Your task to perform on an android device: turn off smart reply in the gmail app Image 0: 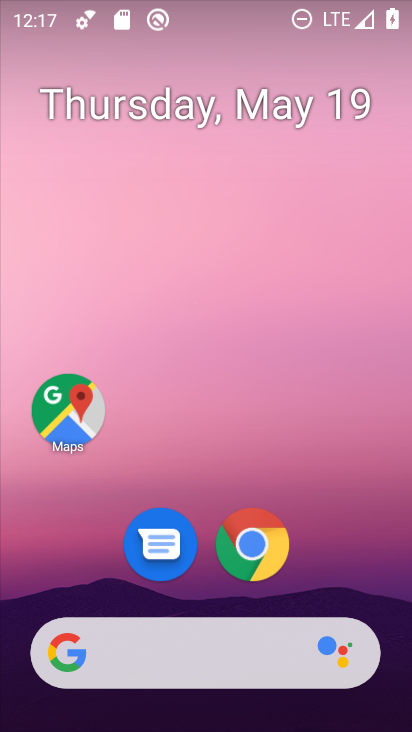
Step 0: click (344, 587)
Your task to perform on an android device: turn off smart reply in the gmail app Image 1: 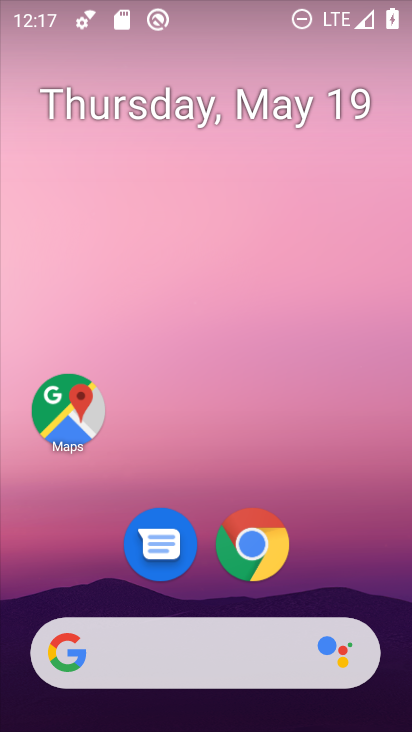
Step 1: drag from (344, 587) to (291, 242)
Your task to perform on an android device: turn off smart reply in the gmail app Image 2: 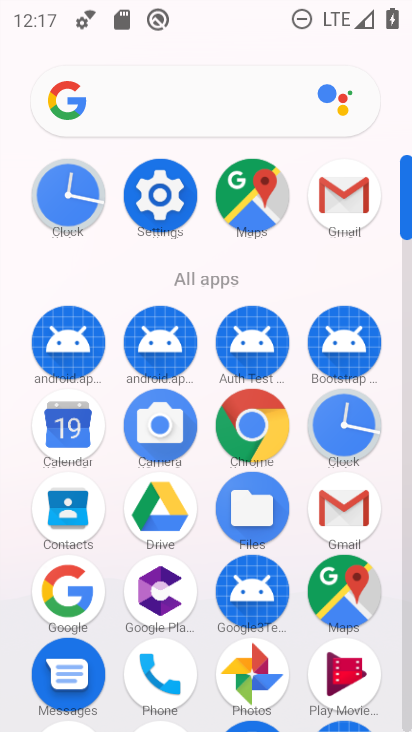
Step 2: click (156, 212)
Your task to perform on an android device: turn off smart reply in the gmail app Image 3: 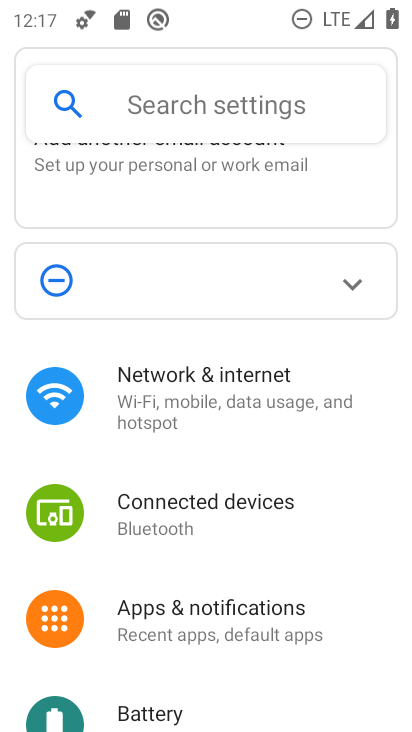
Step 3: press home button
Your task to perform on an android device: turn off smart reply in the gmail app Image 4: 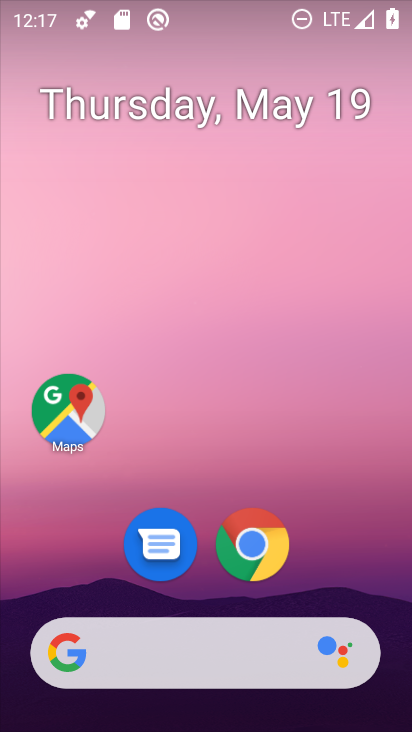
Step 4: drag from (350, 538) to (347, 253)
Your task to perform on an android device: turn off smart reply in the gmail app Image 5: 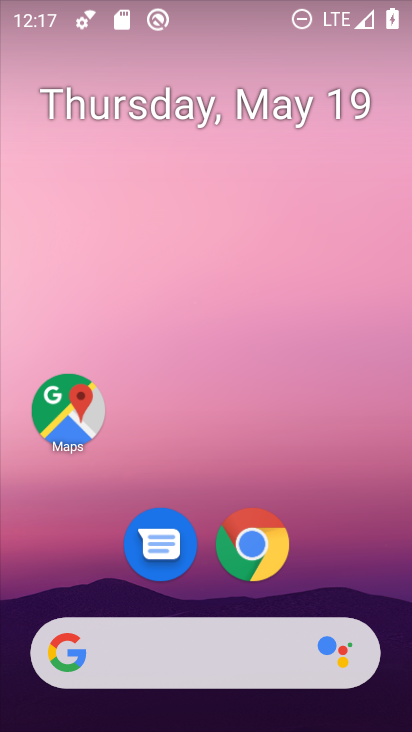
Step 5: drag from (327, 577) to (333, 18)
Your task to perform on an android device: turn off smart reply in the gmail app Image 6: 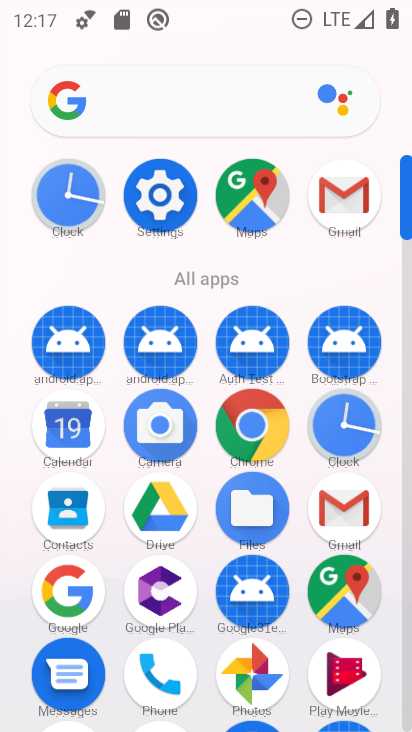
Step 6: click (359, 502)
Your task to perform on an android device: turn off smart reply in the gmail app Image 7: 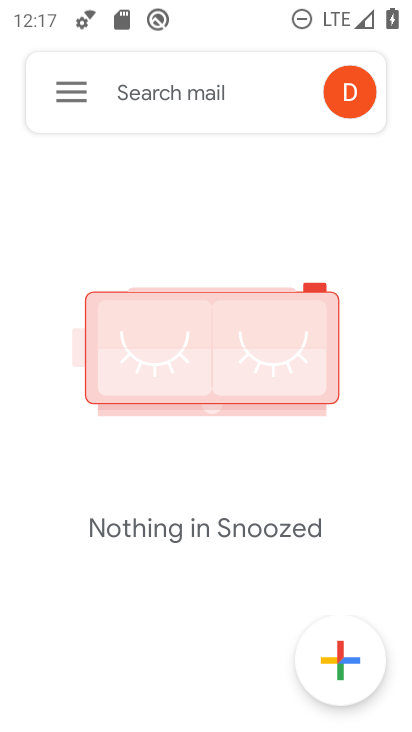
Step 7: click (75, 91)
Your task to perform on an android device: turn off smart reply in the gmail app Image 8: 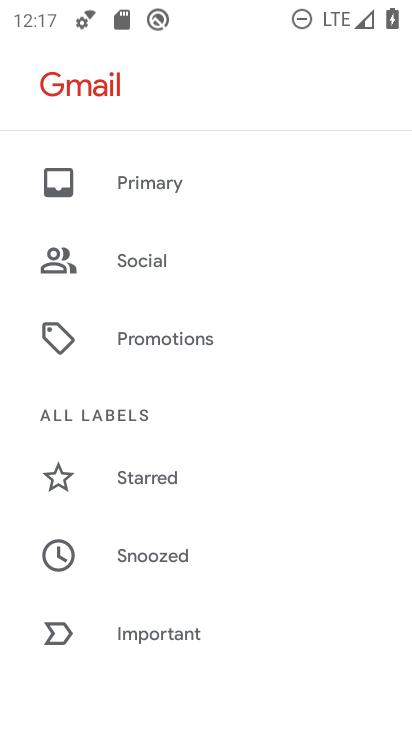
Step 8: drag from (165, 588) to (145, 267)
Your task to perform on an android device: turn off smart reply in the gmail app Image 9: 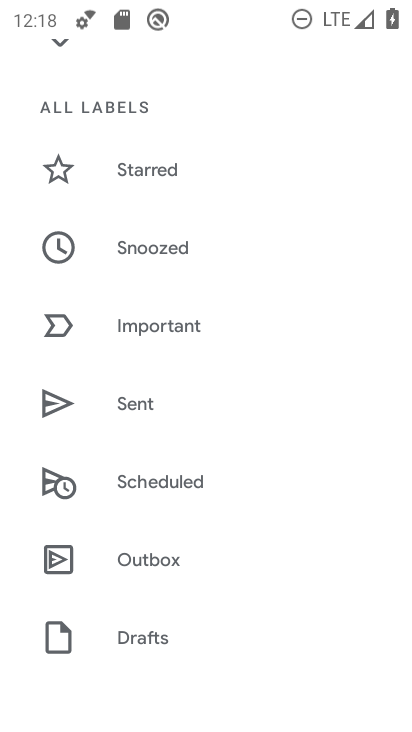
Step 9: drag from (176, 557) to (189, 308)
Your task to perform on an android device: turn off smart reply in the gmail app Image 10: 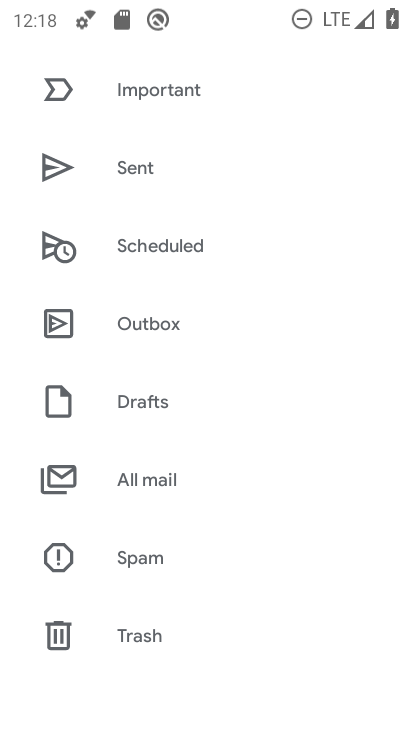
Step 10: drag from (200, 662) to (163, 241)
Your task to perform on an android device: turn off smart reply in the gmail app Image 11: 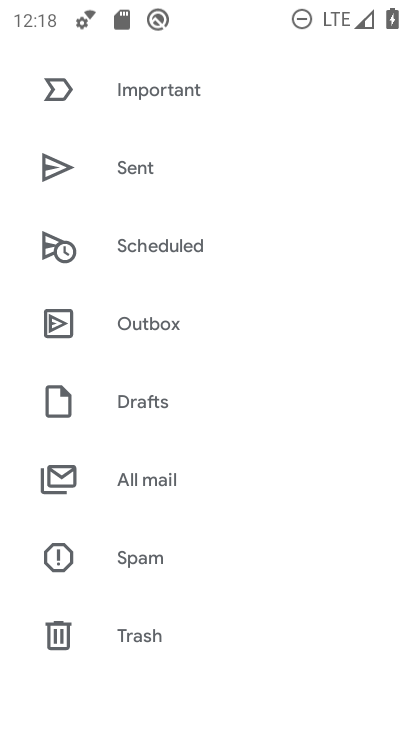
Step 11: drag from (181, 578) to (176, 484)
Your task to perform on an android device: turn off smart reply in the gmail app Image 12: 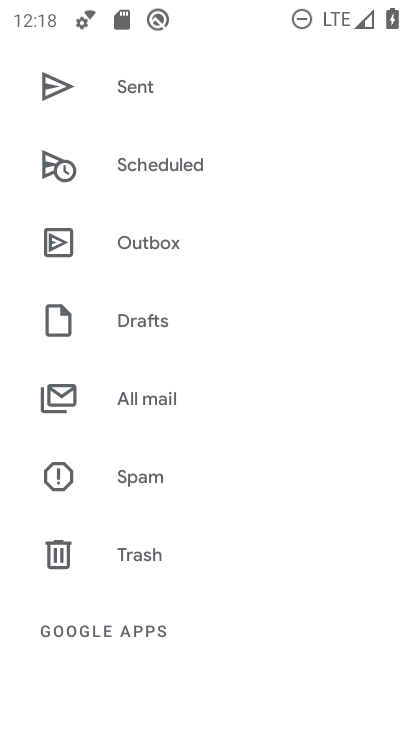
Step 12: drag from (176, 484) to (157, 178)
Your task to perform on an android device: turn off smart reply in the gmail app Image 13: 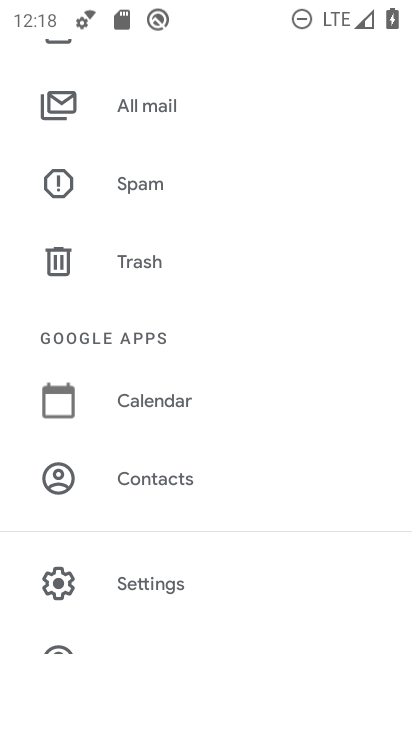
Step 13: click (213, 585)
Your task to perform on an android device: turn off smart reply in the gmail app Image 14: 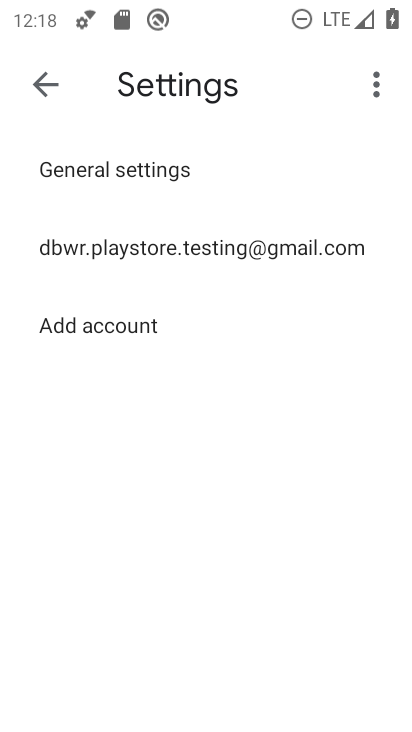
Step 14: click (170, 268)
Your task to perform on an android device: turn off smart reply in the gmail app Image 15: 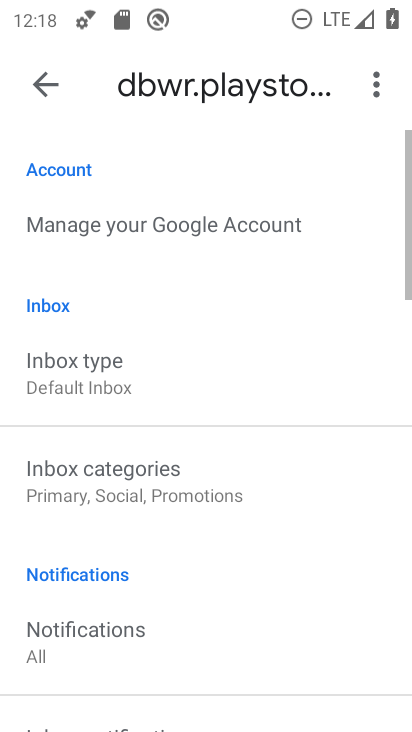
Step 15: drag from (76, 485) to (40, 81)
Your task to perform on an android device: turn off smart reply in the gmail app Image 16: 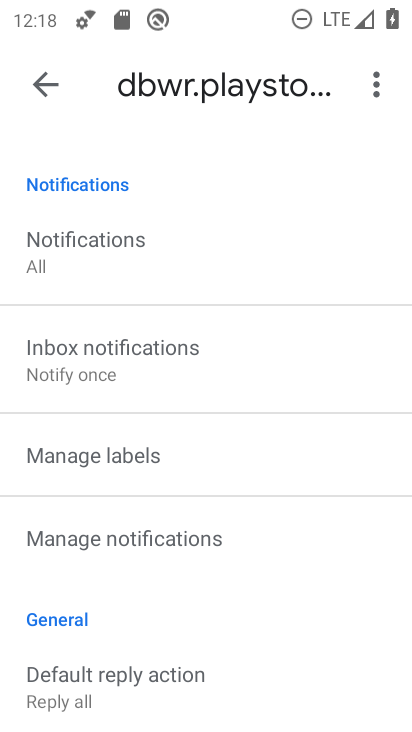
Step 16: drag from (131, 608) to (81, 320)
Your task to perform on an android device: turn off smart reply in the gmail app Image 17: 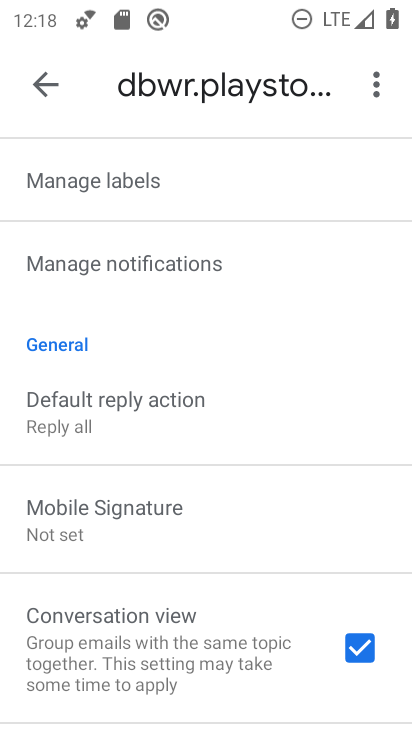
Step 17: drag from (183, 620) to (136, 291)
Your task to perform on an android device: turn off smart reply in the gmail app Image 18: 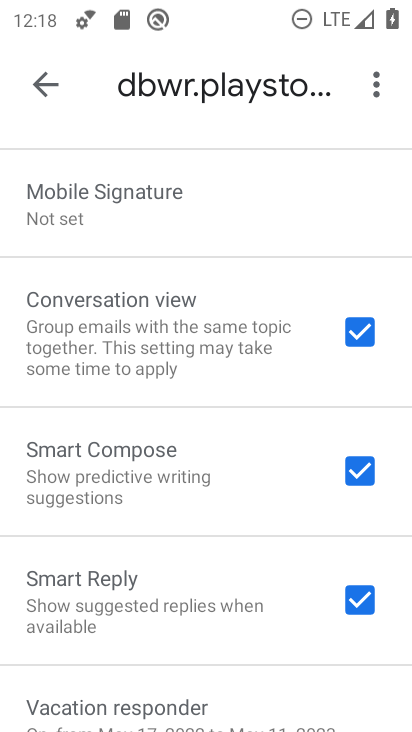
Step 18: click (282, 605)
Your task to perform on an android device: turn off smart reply in the gmail app Image 19: 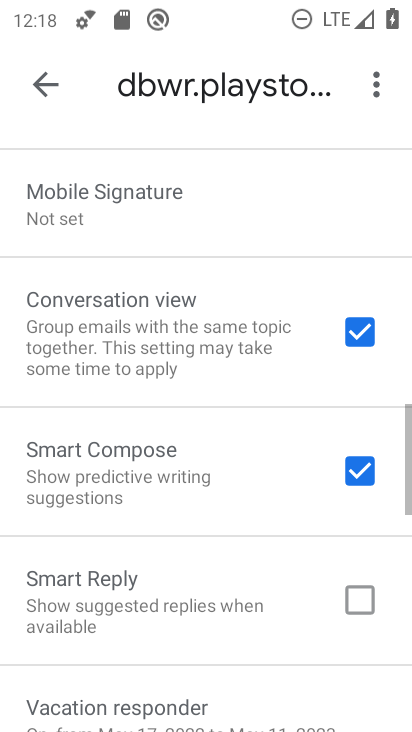
Step 19: task complete